Your task to perform on an android device: Go to wifi settings Image 0: 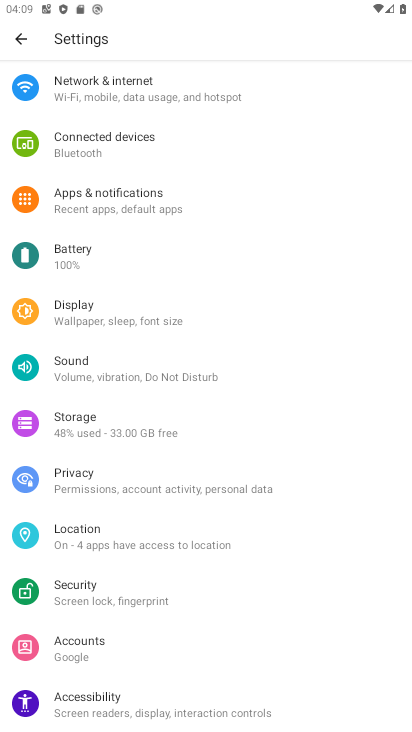
Step 0: click (138, 91)
Your task to perform on an android device: Go to wifi settings Image 1: 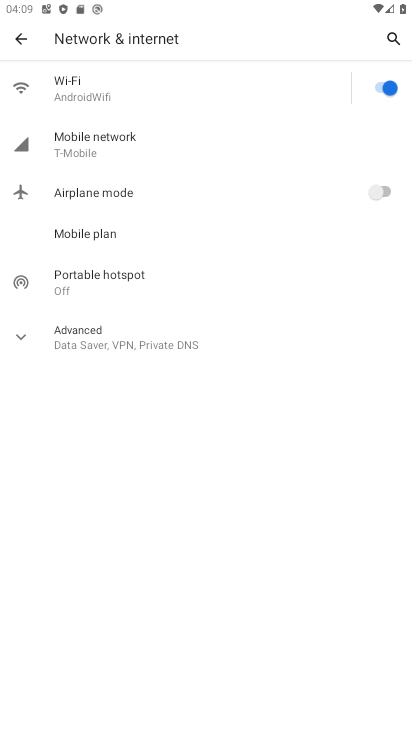
Step 1: click (52, 83)
Your task to perform on an android device: Go to wifi settings Image 2: 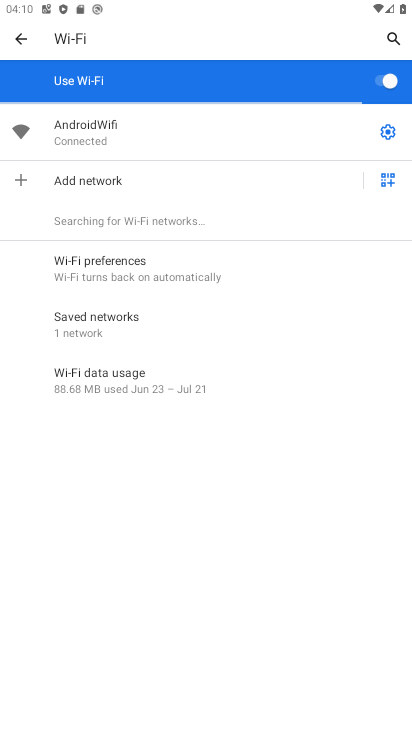
Step 2: click (389, 134)
Your task to perform on an android device: Go to wifi settings Image 3: 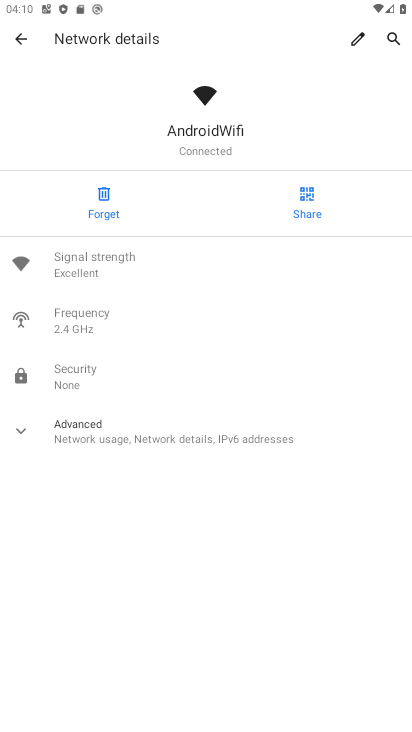
Step 3: task complete